Your task to perform on an android device: Open Chrome and go to settings Image 0: 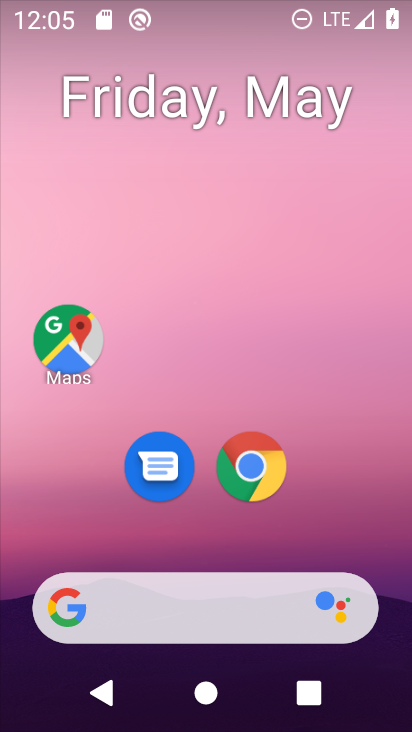
Step 0: drag from (298, 533) to (281, 6)
Your task to perform on an android device: Open Chrome and go to settings Image 1: 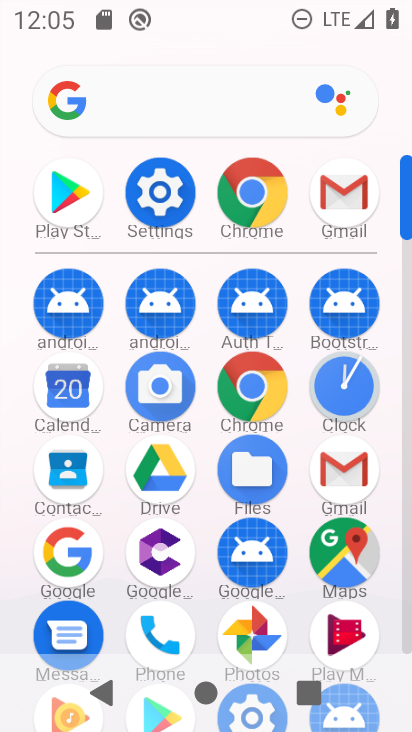
Step 1: click (244, 385)
Your task to perform on an android device: Open Chrome and go to settings Image 2: 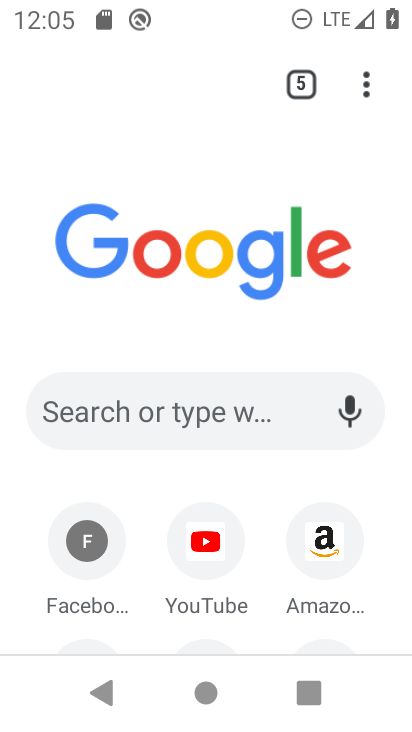
Step 2: click (371, 85)
Your task to perform on an android device: Open Chrome and go to settings Image 3: 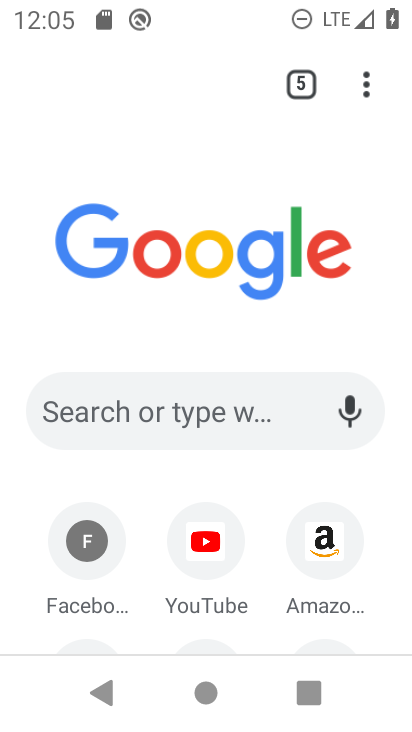
Step 3: task complete